Your task to perform on an android device: snooze an email in the gmail app Image 0: 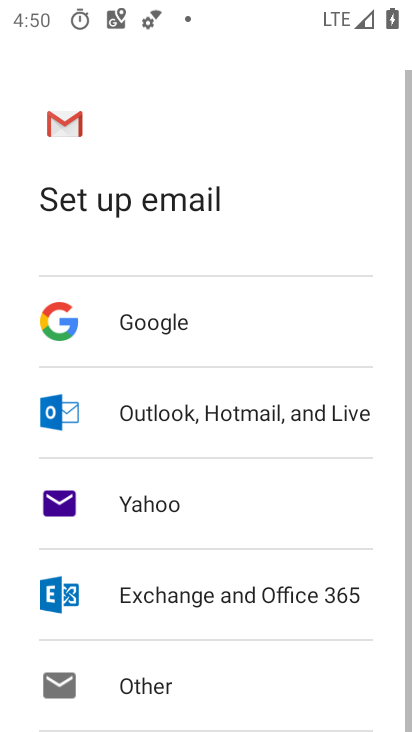
Step 0: press home button
Your task to perform on an android device: snooze an email in the gmail app Image 1: 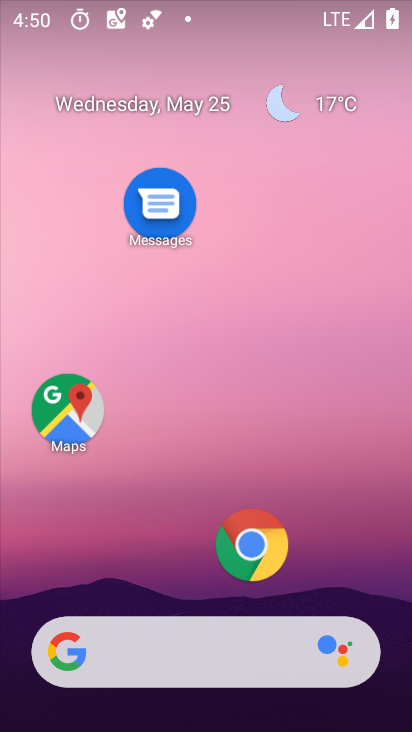
Step 1: drag from (303, 580) to (314, 259)
Your task to perform on an android device: snooze an email in the gmail app Image 2: 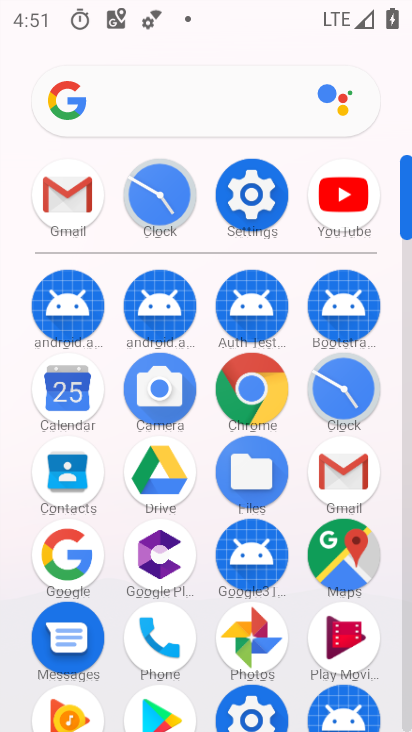
Step 2: click (83, 211)
Your task to perform on an android device: snooze an email in the gmail app Image 3: 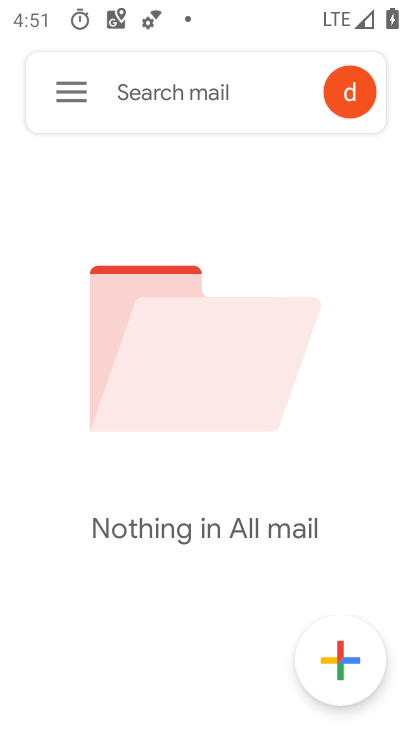
Step 3: click (66, 80)
Your task to perform on an android device: snooze an email in the gmail app Image 4: 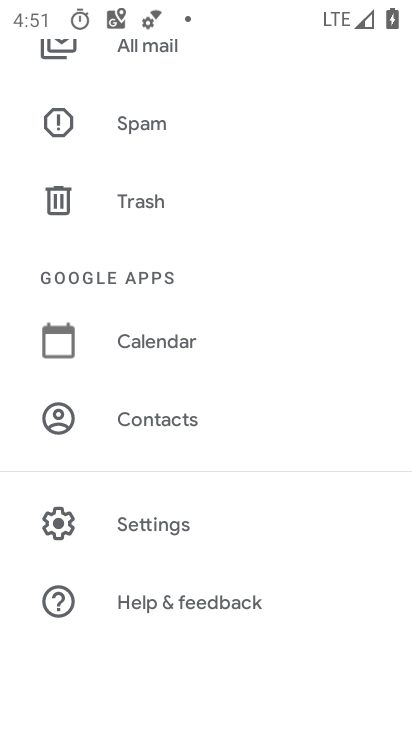
Step 4: click (182, 531)
Your task to perform on an android device: snooze an email in the gmail app Image 5: 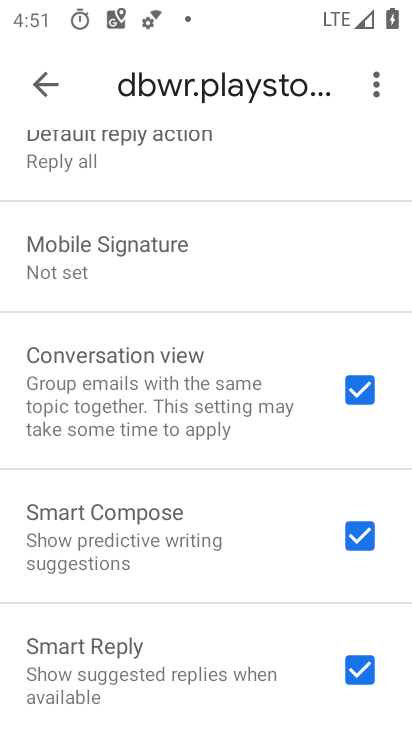
Step 5: click (41, 79)
Your task to perform on an android device: snooze an email in the gmail app Image 6: 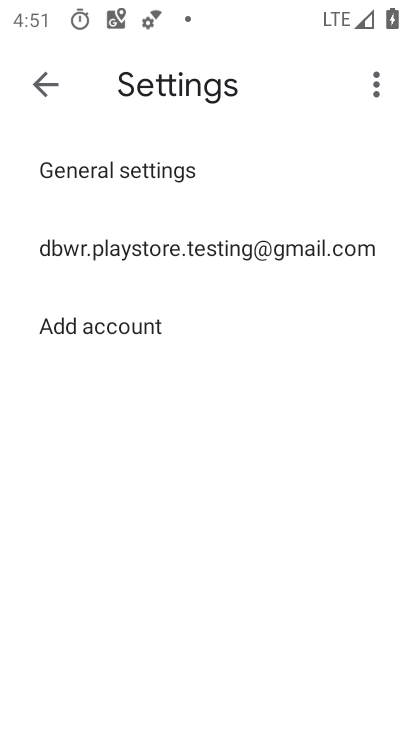
Step 6: click (40, 76)
Your task to perform on an android device: snooze an email in the gmail app Image 7: 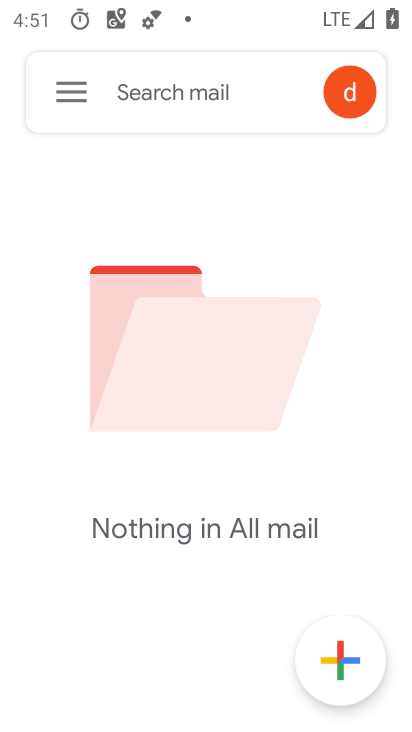
Step 7: task complete